Your task to perform on an android device: turn on notifications settings in the gmail app Image 0: 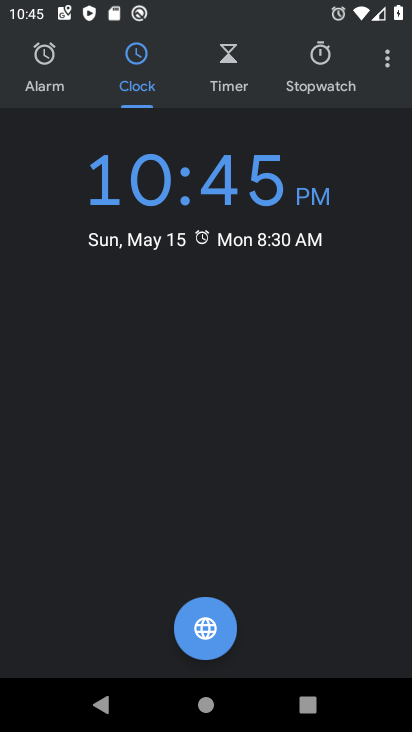
Step 0: press back button
Your task to perform on an android device: turn on notifications settings in the gmail app Image 1: 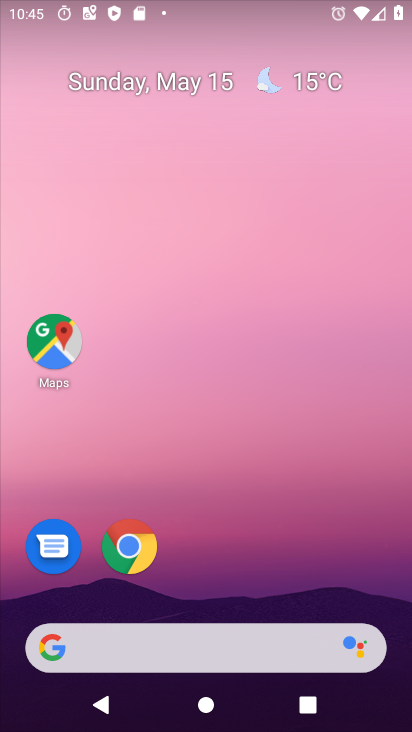
Step 1: drag from (294, 705) to (185, 138)
Your task to perform on an android device: turn on notifications settings in the gmail app Image 2: 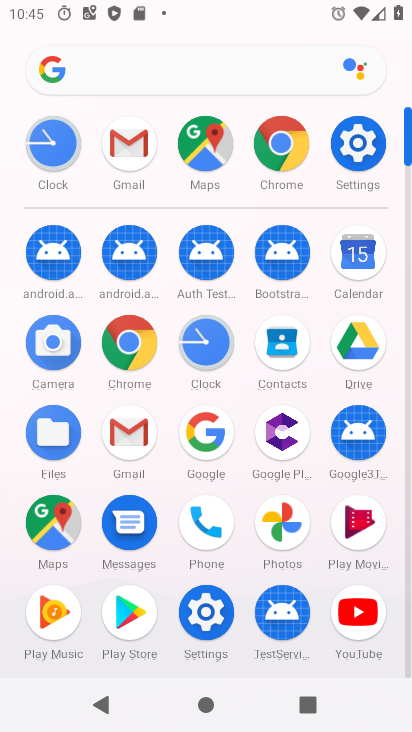
Step 2: click (129, 441)
Your task to perform on an android device: turn on notifications settings in the gmail app Image 3: 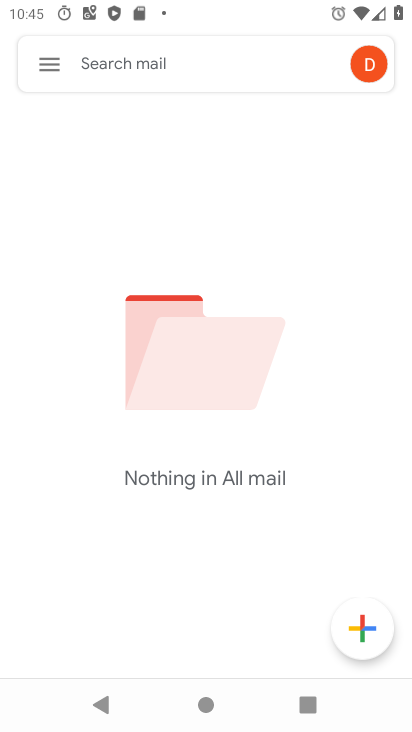
Step 3: click (46, 72)
Your task to perform on an android device: turn on notifications settings in the gmail app Image 4: 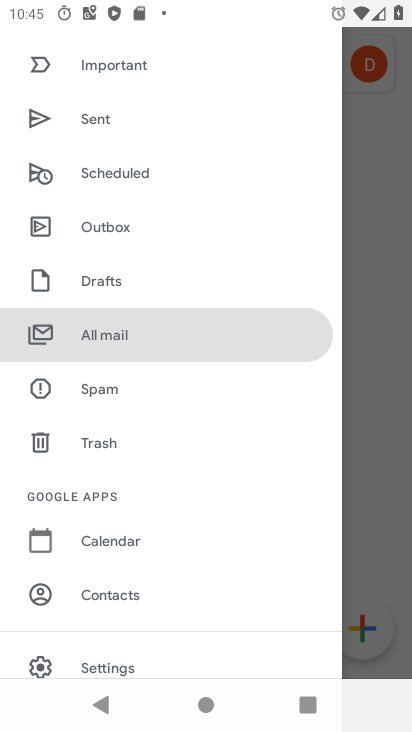
Step 4: drag from (101, 537) to (88, 195)
Your task to perform on an android device: turn on notifications settings in the gmail app Image 5: 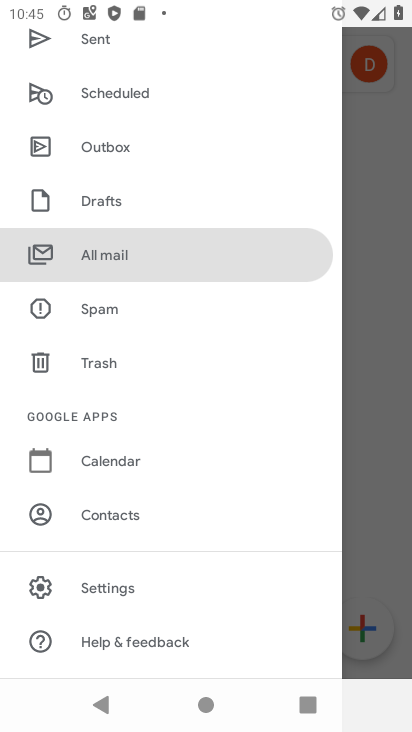
Step 5: click (111, 580)
Your task to perform on an android device: turn on notifications settings in the gmail app Image 6: 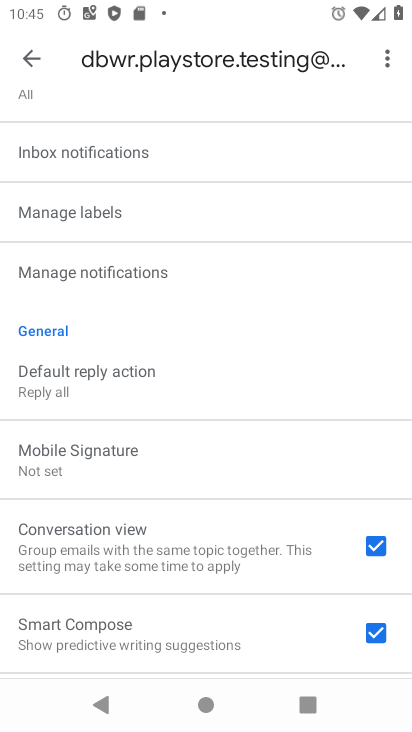
Step 6: drag from (139, 555) to (111, 287)
Your task to perform on an android device: turn on notifications settings in the gmail app Image 7: 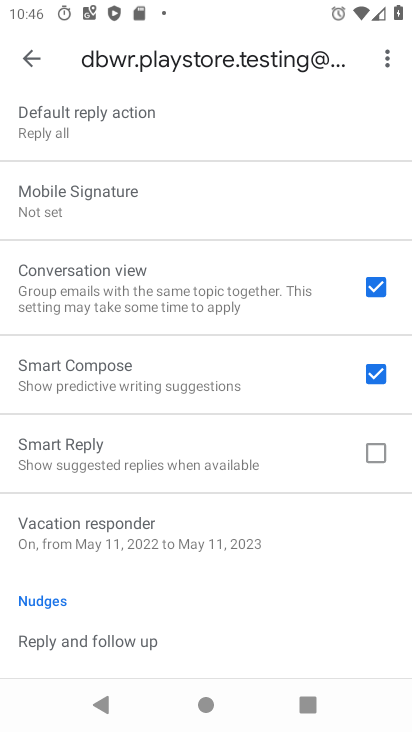
Step 7: drag from (115, 239) to (117, 572)
Your task to perform on an android device: turn on notifications settings in the gmail app Image 8: 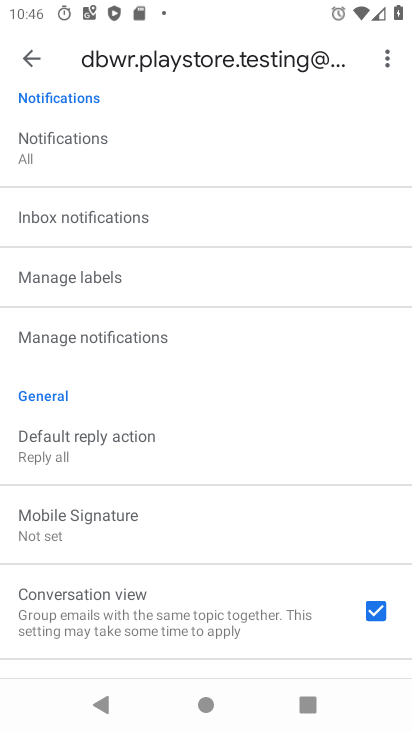
Step 8: click (55, 120)
Your task to perform on an android device: turn on notifications settings in the gmail app Image 9: 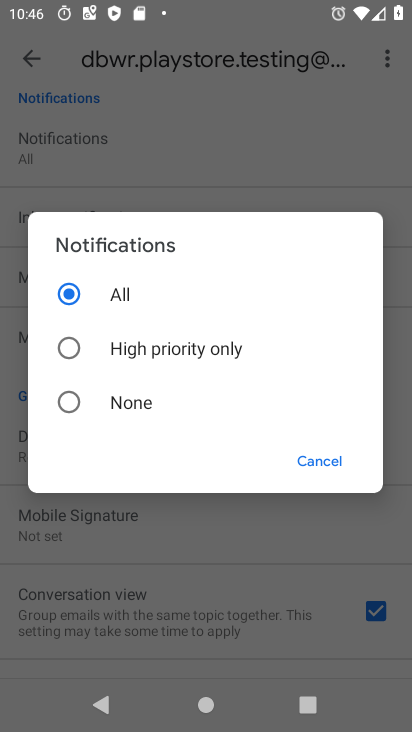
Step 9: task complete